Your task to perform on an android device: Go to Reddit.com Image 0: 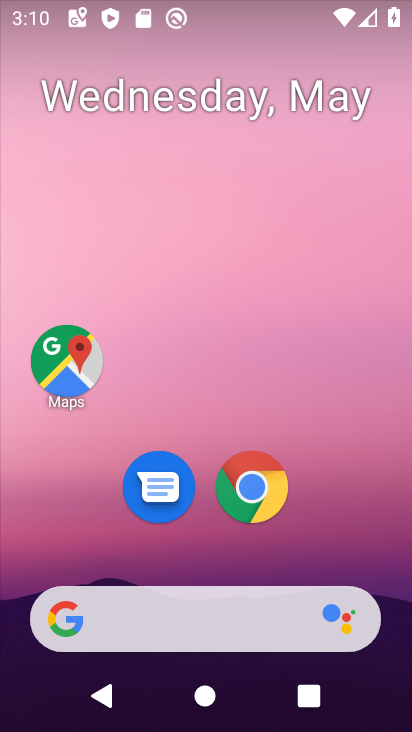
Step 0: drag from (342, 491) to (287, 41)
Your task to perform on an android device: Go to Reddit.com Image 1: 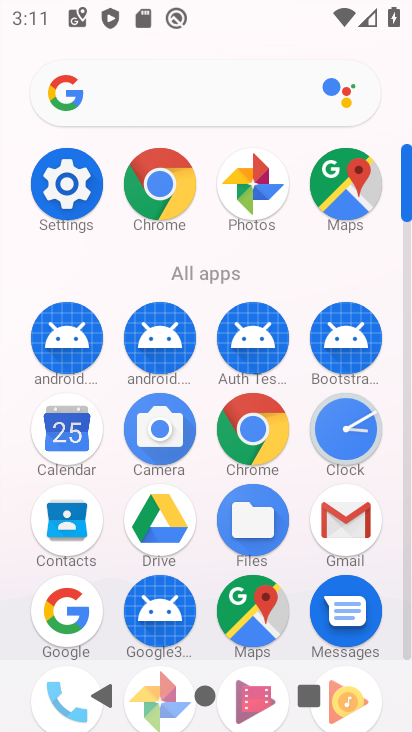
Step 1: click (150, 183)
Your task to perform on an android device: Go to Reddit.com Image 2: 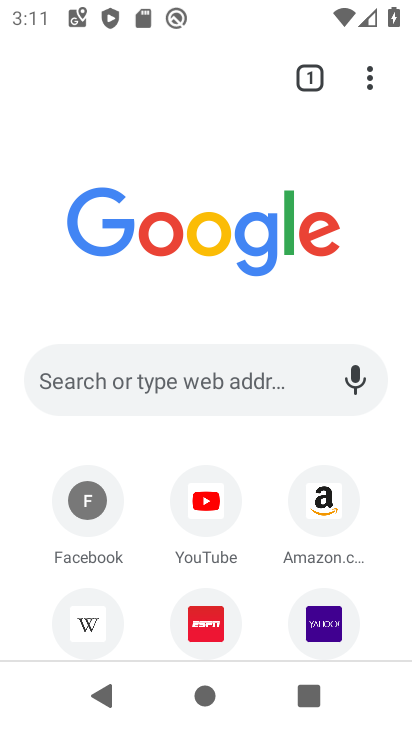
Step 2: click (97, 383)
Your task to perform on an android device: Go to Reddit.com Image 3: 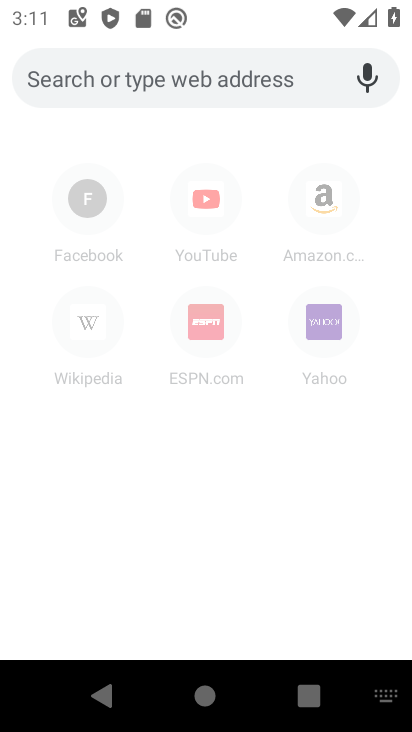
Step 3: type " Reddit.com"
Your task to perform on an android device: Go to Reddit.com Image 4: 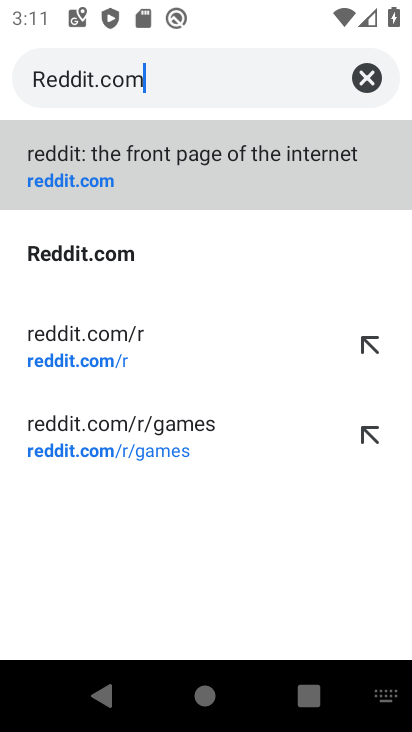
Step 4: type ""
Your task to perform on an android device: Go to Reddit.com Image 5: 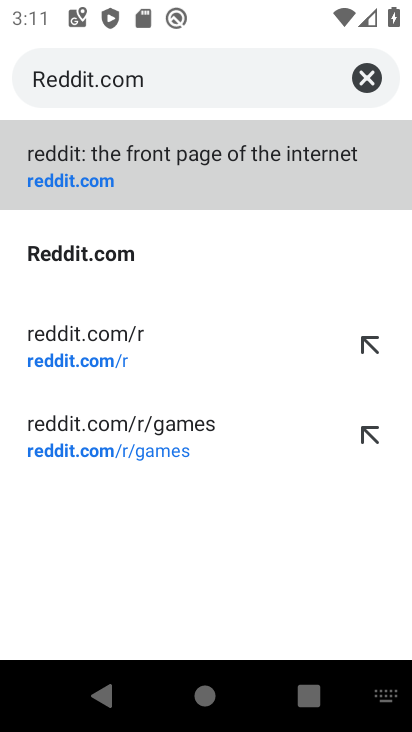
Step 5: click (117, 169)
Your task to perform on an android device: Go to Reddit.com Image 6: 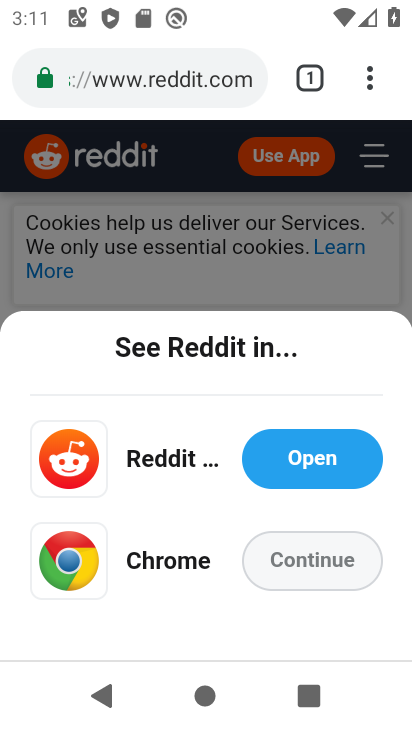
Step 6: task complete